Your task to perform on an android device: What's the weather going to be this weekend? Image 0: 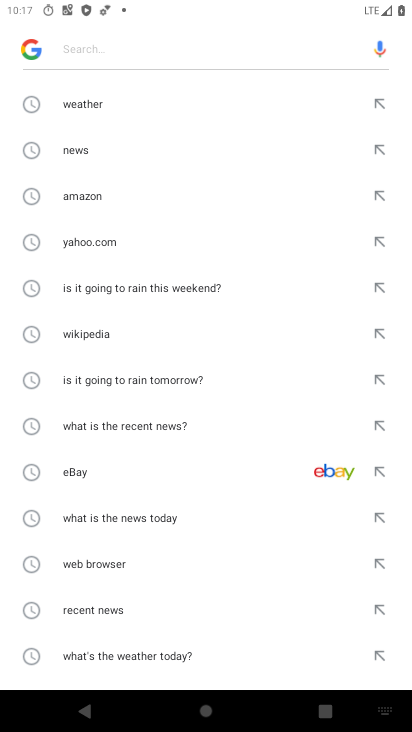
Step 0: click (127, 118)
Your task to perform on an android device: What's the weather going to be this weekend? Image 1: 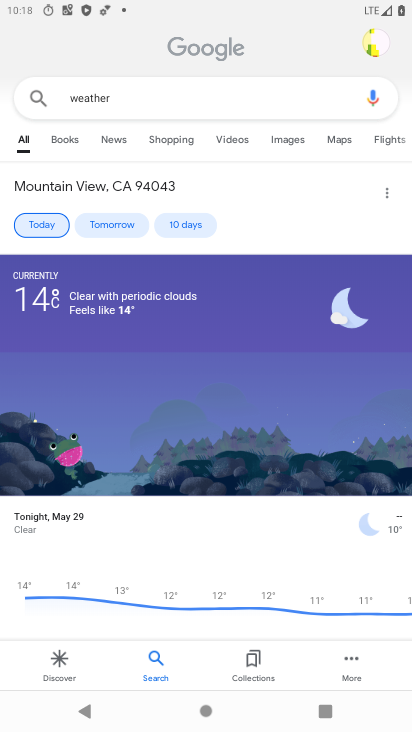
Step 1: click (181, 234)
Your task to perform on an android device: What's the weather going to be this weekend? Image 2: 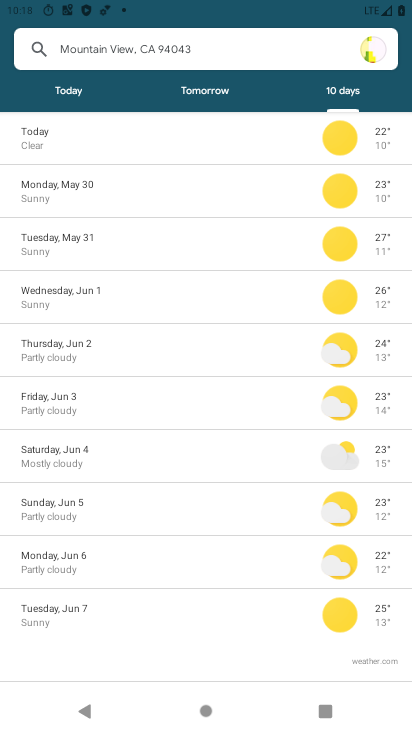
Step 2: task complete